Your task to perform on an android device: Open Google Chrome Image 0: 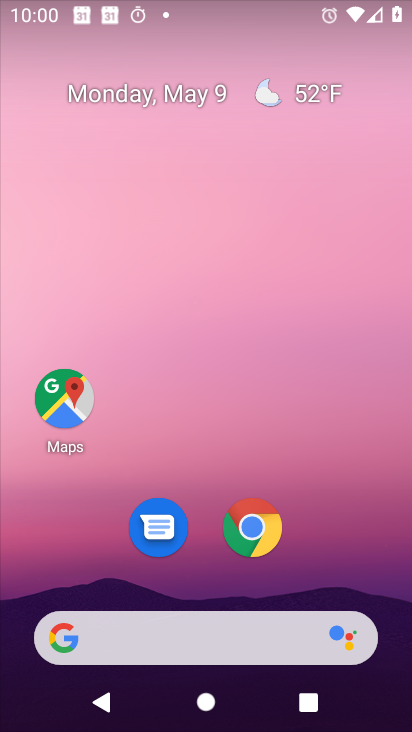
Step 0: click (252, 528)
Your task to perform on an android device: Open Google Chrome Image 1: 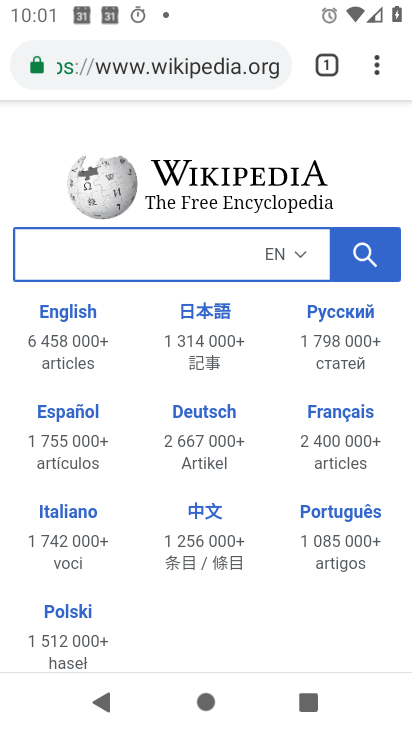
Step 1: task complete